Your task to perform on an android device: Go to wifi settings Image 0: 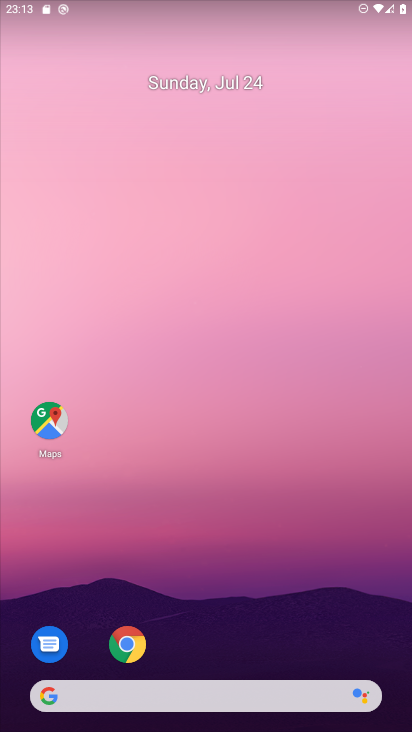
Step 0: drag from (362, 627) to (319, 83)
Your task to perform on an android device: Go to wifi settings Image 1: 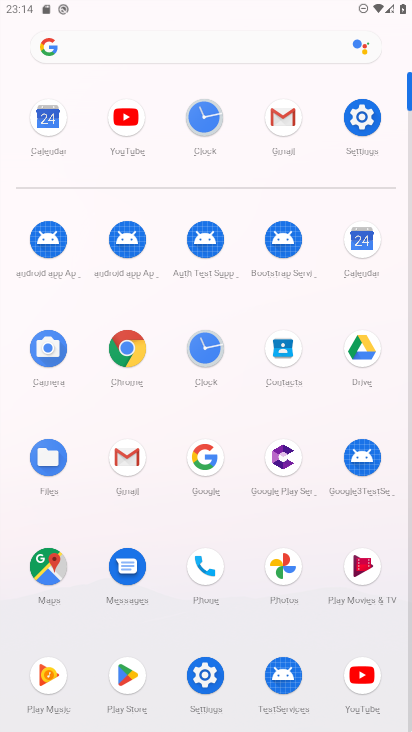
Step 1: click (203, 675)
Your task to perform on an android device: Go to wifi settings Image 2: 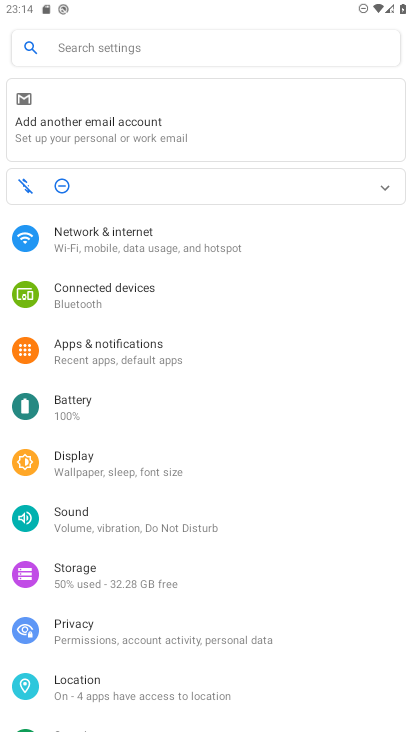
Step 2: click (83, 238)
Your task to perform on an android device: Go to wifi settings Image 3: 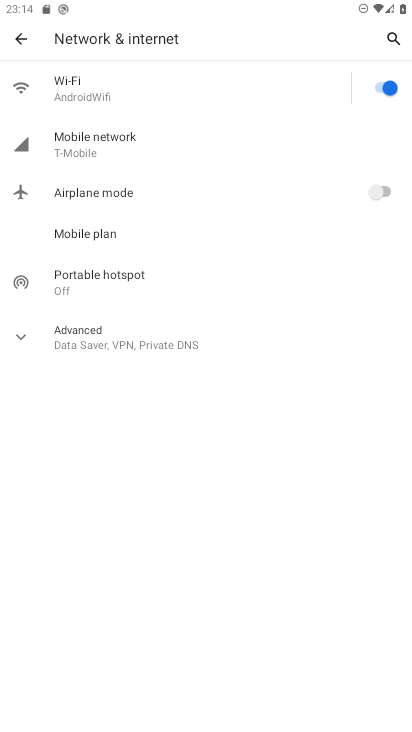
Step 3: click (62, 82)
Your task to perform on an android device: Go to wifi settings Image 4: 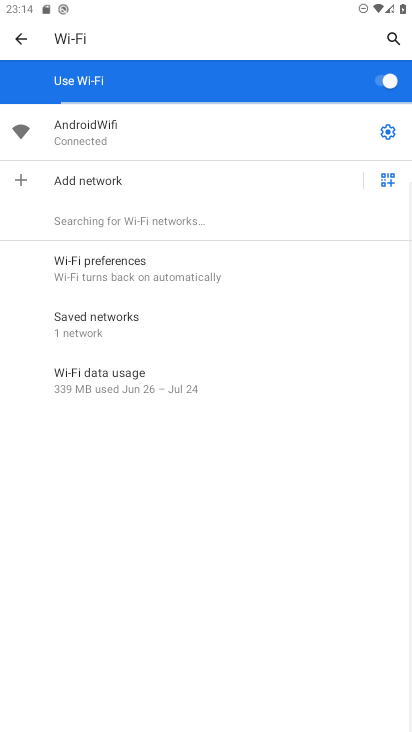
Step 4: task complete